Your task to perform on an android device: change the clock display to digital Image 0: 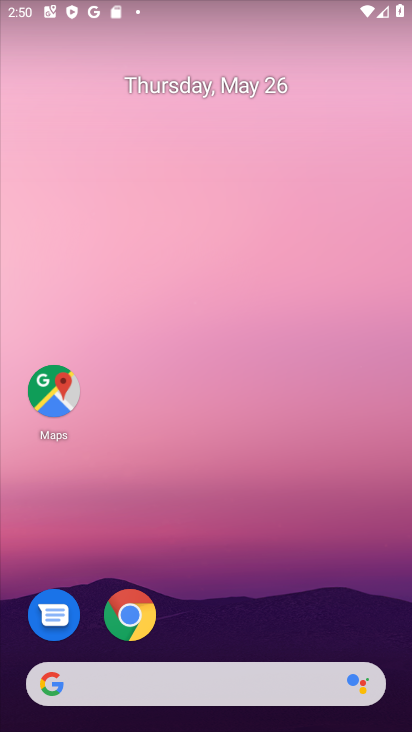
Step 0: drag from (219, 629) to (257, 1)
Your task to perform on an android device: change the clock display to digital Image 1: 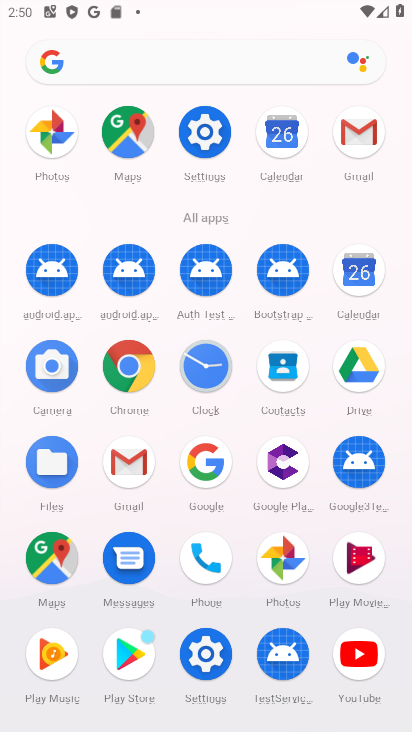
Step 1: click (208, 134)
Your task to perform on an android device: change the clock display to digital Image 2: 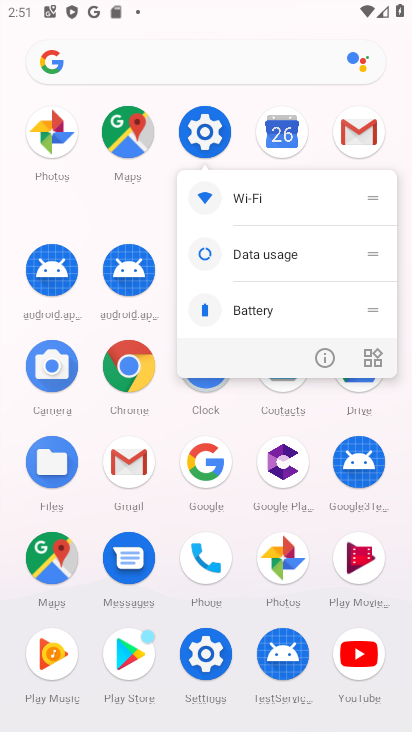
Step 2: click (193, 143)
Your task to perform on an android device: change the clock display to digital Image 3: 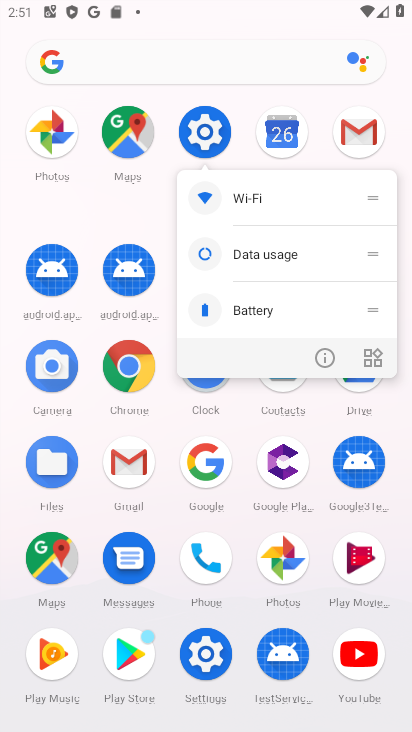
Step 3: click (35, 219)
Your task to perform on an android device: change the clock display to digital Image 4: 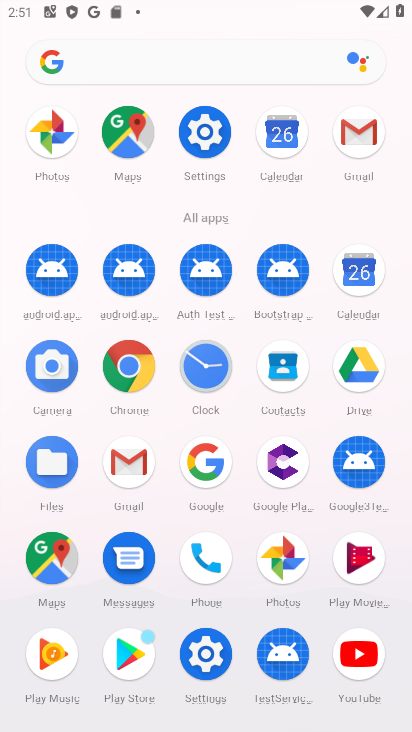
Step 4: click (220, 374)
Your task to perform on an android device: change the clock display to digital Image 5: 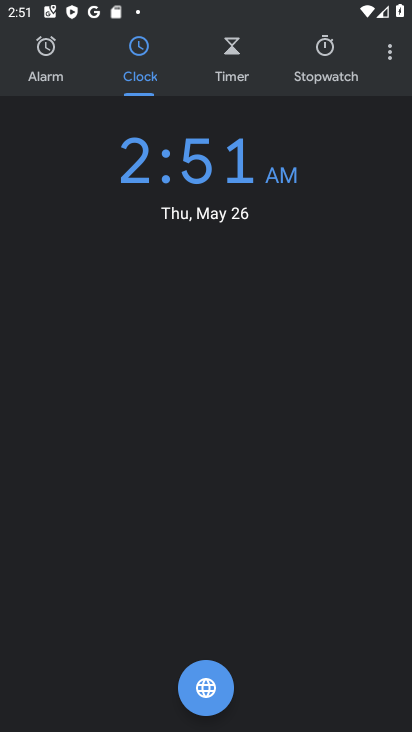
Step 5: click (396, 57)
Your task to perform on an android device: change the clock display to digital Image 6: 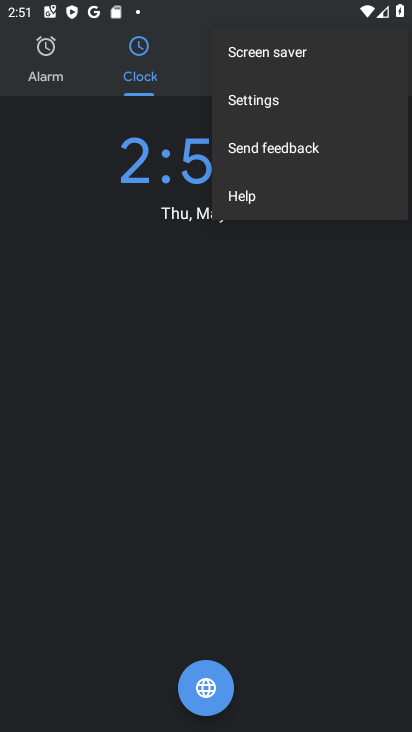
Step 6: click (267, 105)
Your task to perform on an android device: change the clock display to digital Image 7: 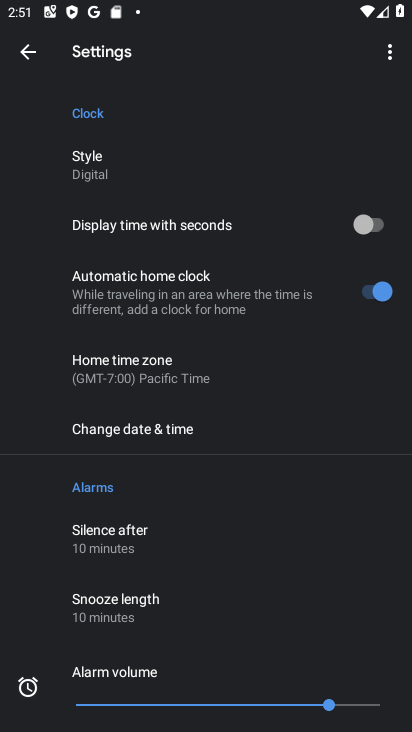
Step 7: task complete